Your task to perform on an android device: see tabs open on other devices in the chrome app Image 0: 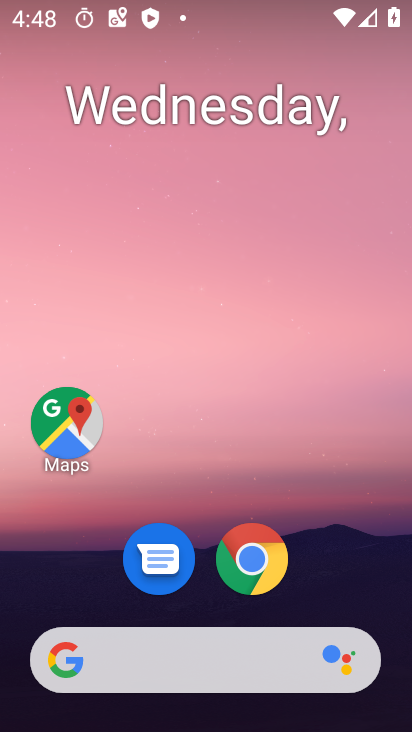
Step 0: click (281, 562)
Your task to perform on an android device: see tabs open on other devices in the chrome app Image 1: 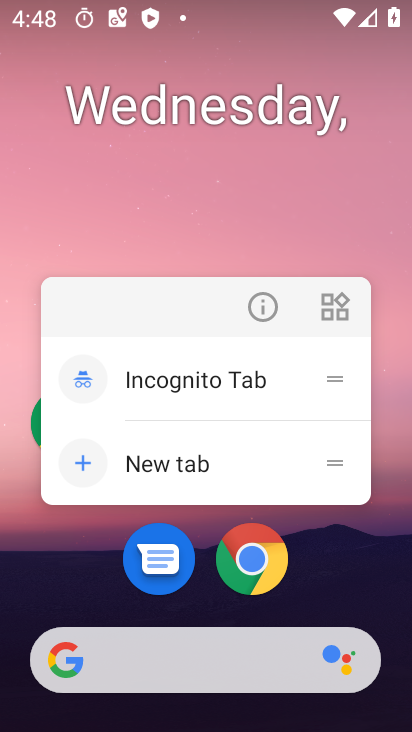
Step 1: click (281, 562)
Your task to perform on an android device: see tabs open on other devices in the chrome app Image 2: 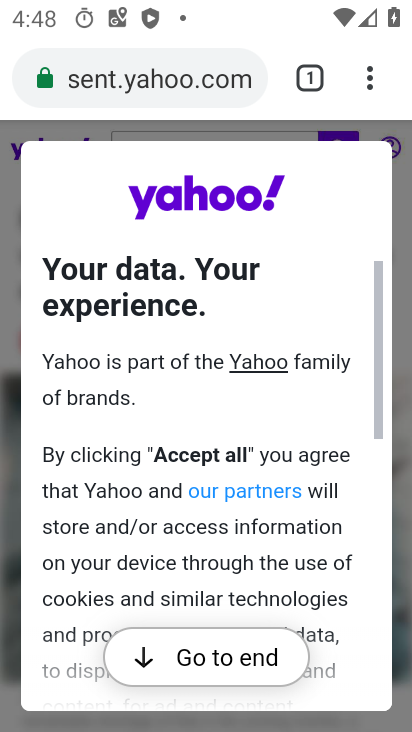
Step 2: click (374, 79)
Your task to perform on an android device: see tabs open on other devices in the chrome app Image 3: 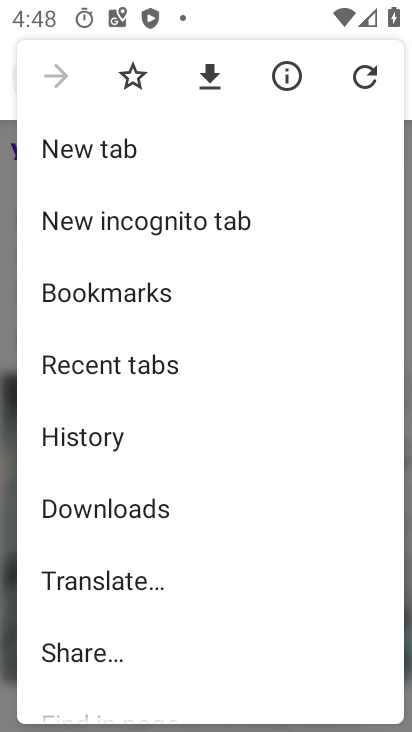
Step 3: click (161, 370)
Your task to perform on an android device: see tabs open on other devices in the chrome app Image 4: 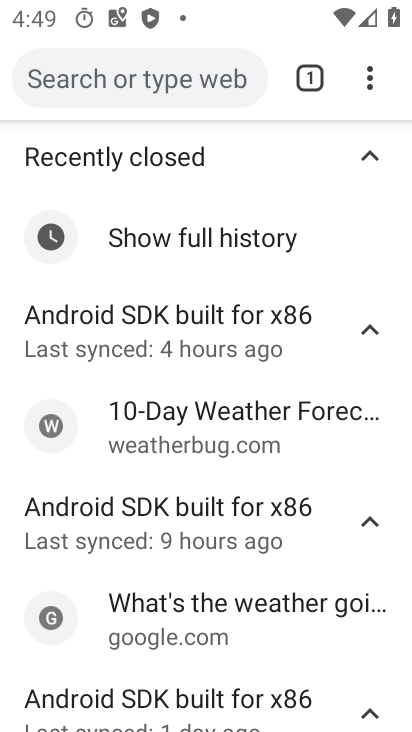
Step 4: task complete